Your task to perform on an android device: show emergency info Image 0: 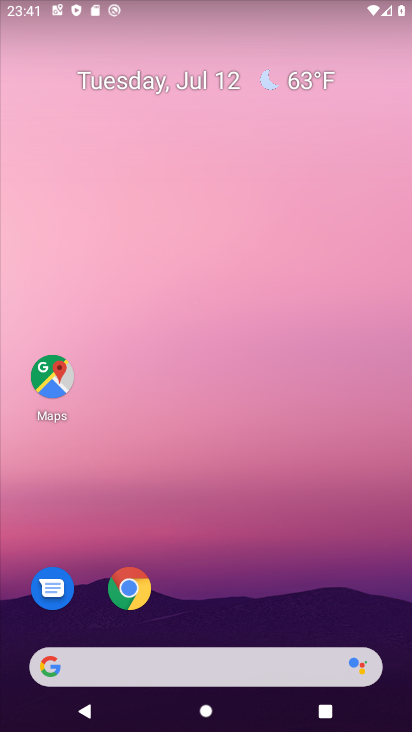
Step 0: drag from (23, 707) to (141, 244)
Your task to perform on an android device: show emergency info Image 1: 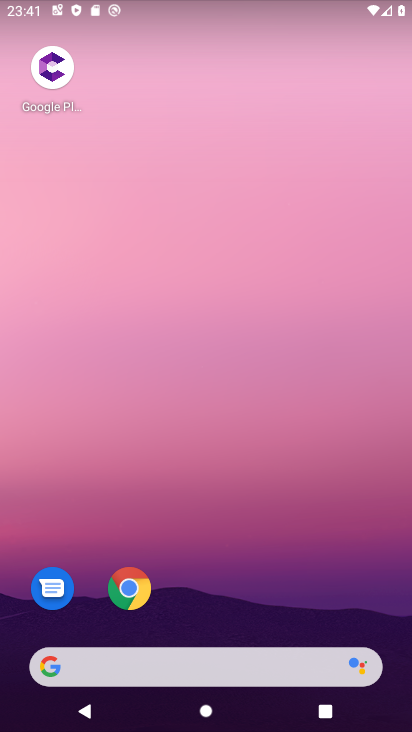
Step 1: drag from (64, 516) to (174, 8)
Your task to perform on an android device: show emergency info Image 2: 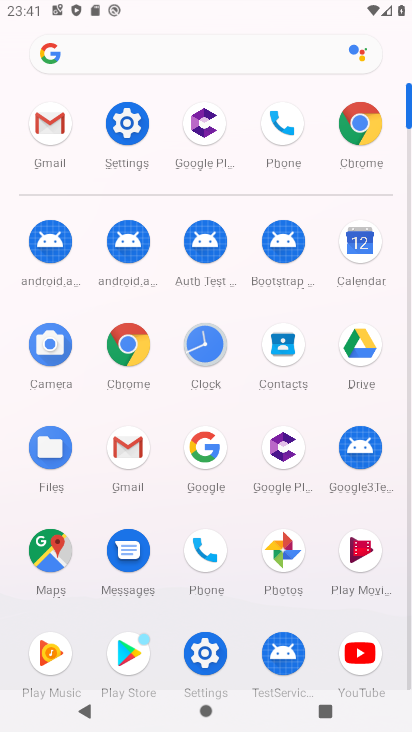
Step 2: click (197, 662)
Your task to perform on an android device: show emergency info Image 3: 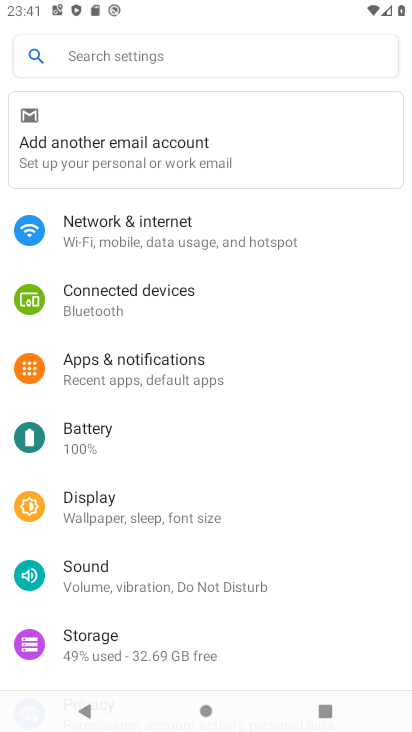
Step 3: drag from (332, 607) to (362, 19)
Your task to perform on an android device: show emergency info Image 4: 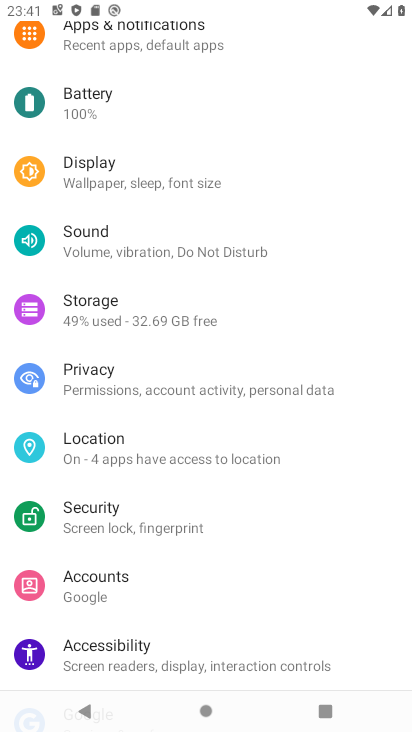
Step 4: drag from (352, 658) to (312, 182)
Your task to perform on an android device: show emergency info Image 5: 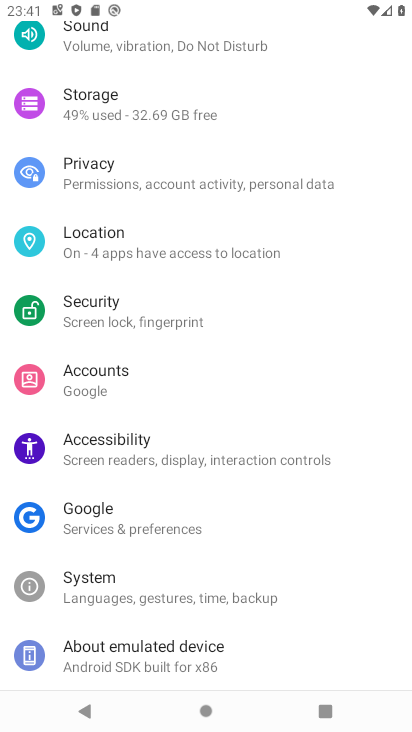
Step 5: drag from (328, 658) to (336, 170)
Your task to perform on an android device: show emergency info Image 6: 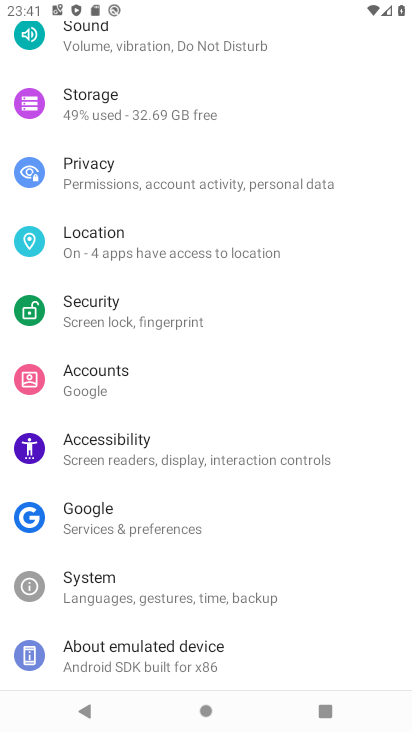
Step 6: drag from (375, 86) to (410, 487)
Your task to perform on an android device: show emergency info Image 7: 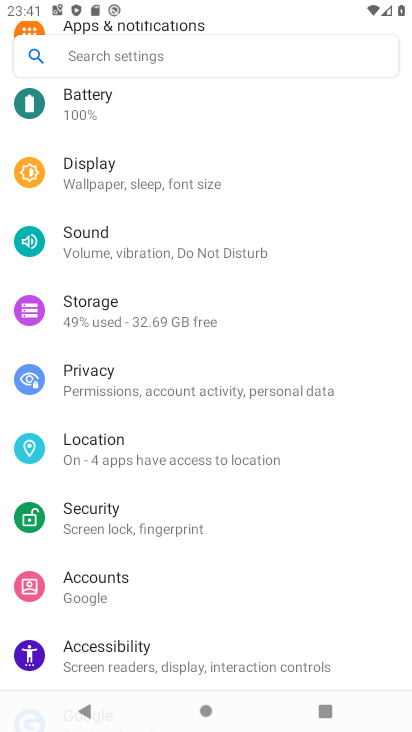
Step 7: drag from (322, 99) to (373, 593)
Your task to perform on an android device: show emergency info Image 8: 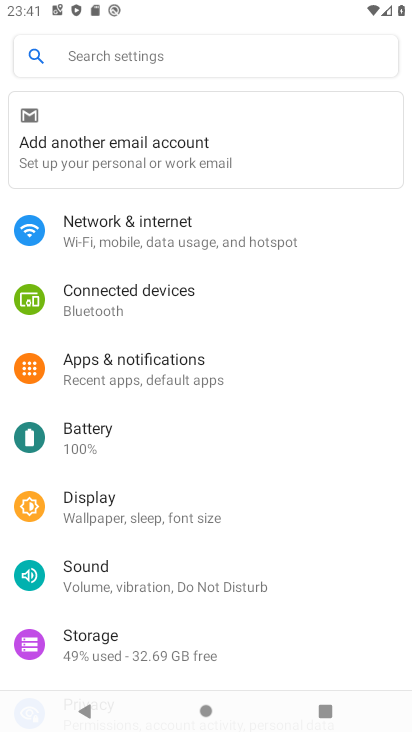
Step 8: click (139, 369)
Your task to perform on an android device: show emergency info Image 9: 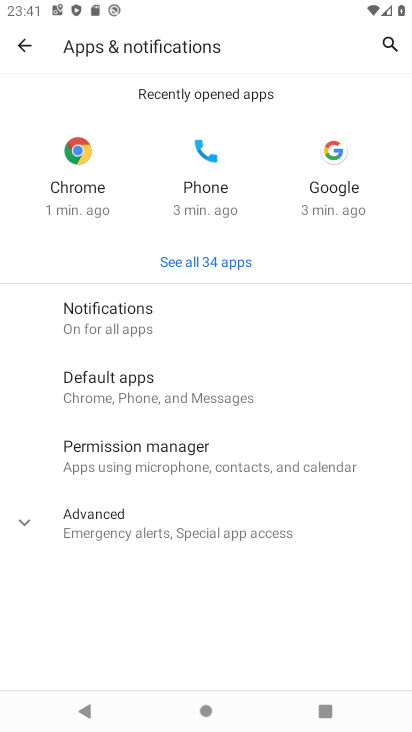
Step 9: click (136, 524)
Your task to perform on an android device: show emergency info Image 10: 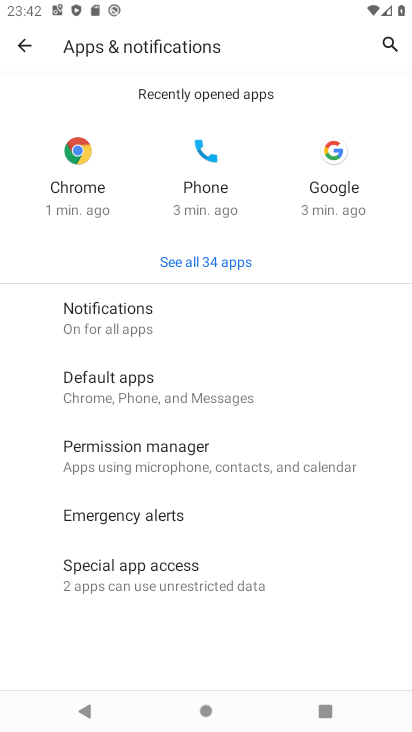
Step 10: click (127, 543)
Your task to perform on an android device: show emergency info Image 11: 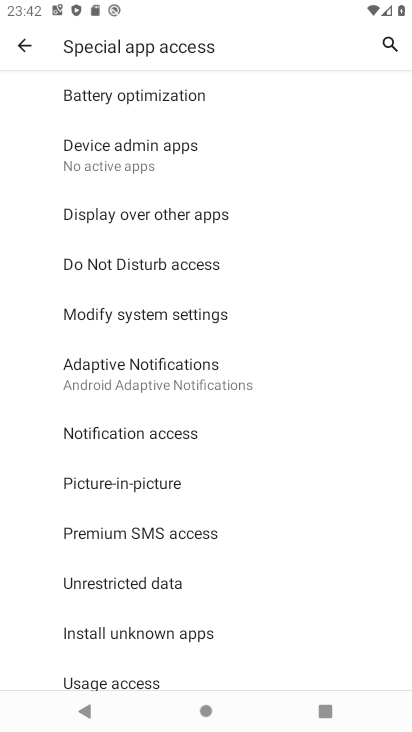
Step 11: drag from (319, 674) to (346, 0)
Your task to perform on an android device: show emergency info Image 12: 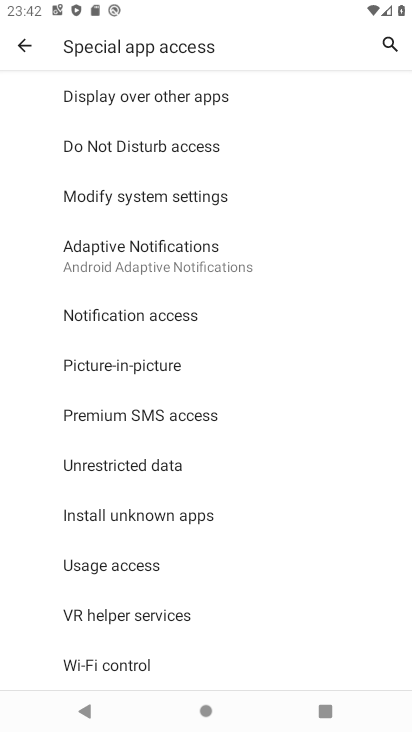
Step 12: drag from (331, 117) to (327, 588)
Your task to perform on an android device: show emergency info Image 13: 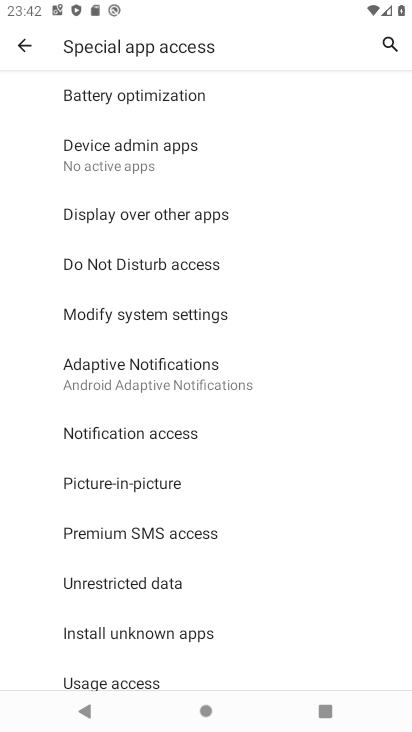
Step 13: click (17, 37)
Your task to perform on an android device: show emergency info Image 14: 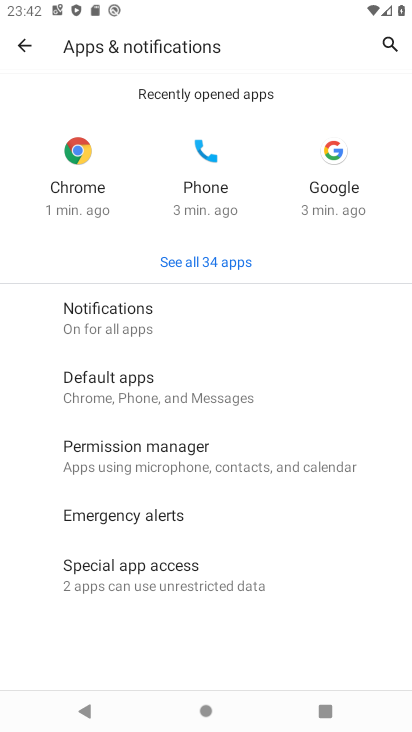
Step 14: click (132, 519)
Your task to perform on an android device: show emergency info Image 15: 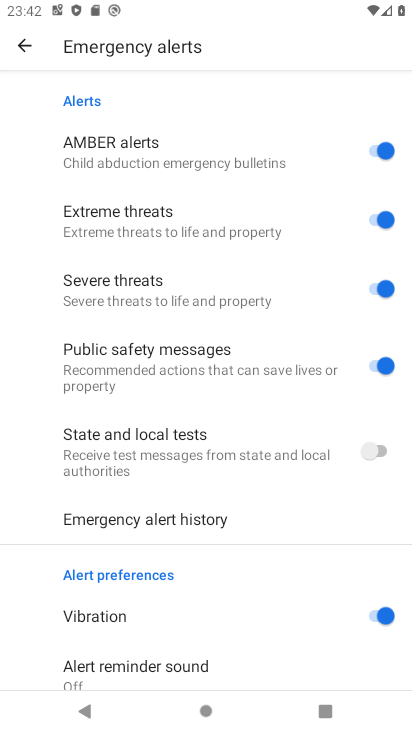
Step 15: task complete